Your task to perform on an android device: turn on notifications settings in the gmail app Image 0: 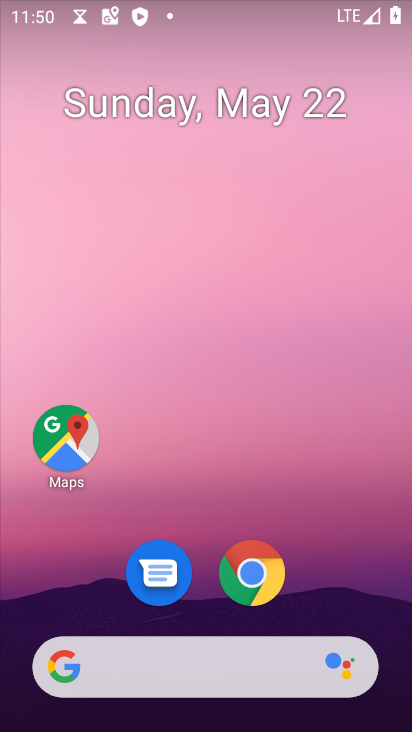
Step 0: press home button
Your task to perform on an android device: turn on notifications settings in the gmail app Image 1: 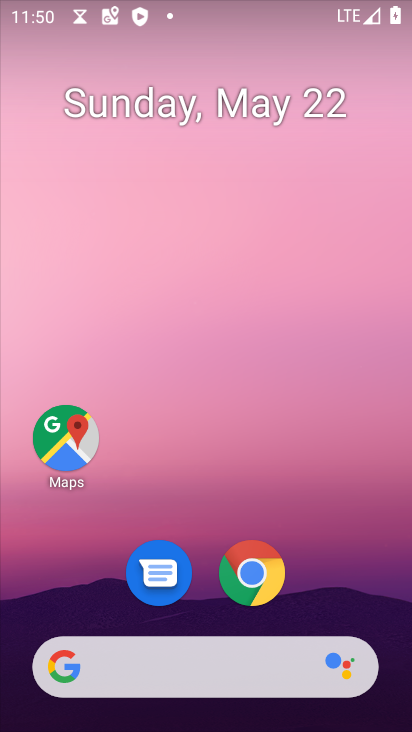
Step 1: drag from (223, 671) to (365, 164)
Your task to perform on an android device: turn on notifications settings in the gmail app Image 2: 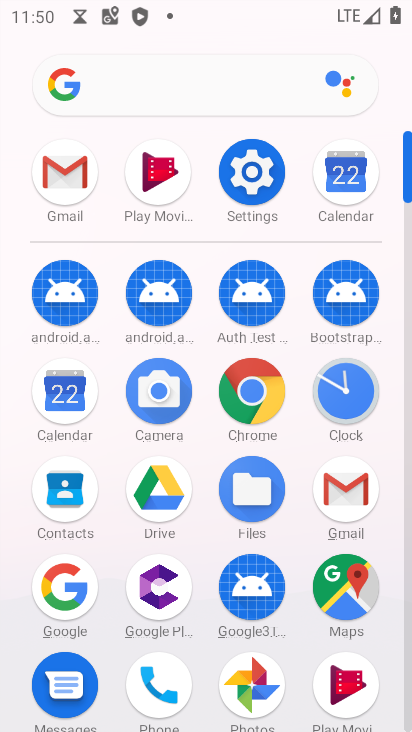
Step 2: click (345, 516)
Your task to perform on an android device: turn on notifications settings in the gmail app Image 3: 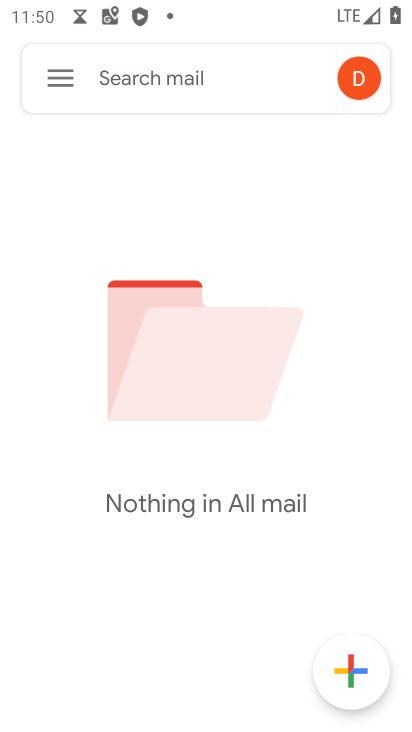
Step 3: click (49, 77)
Your task to perform on an android device: turn on notifications settings in the gmail app Image 4: 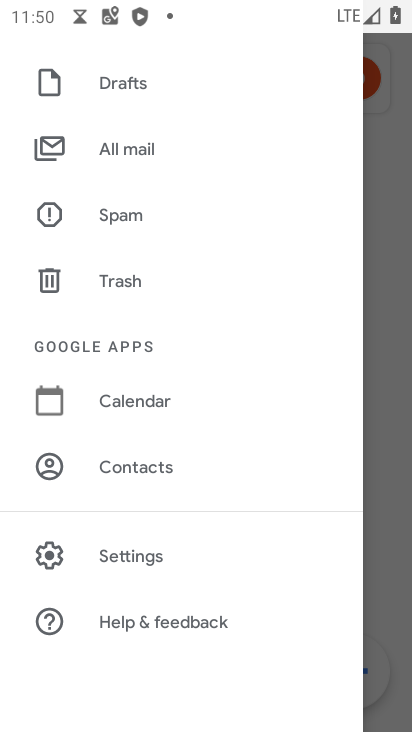
Step 4: click (137, 552)
Your task to perform on an android device: turn on notifications settings in the gmail app Image 5: 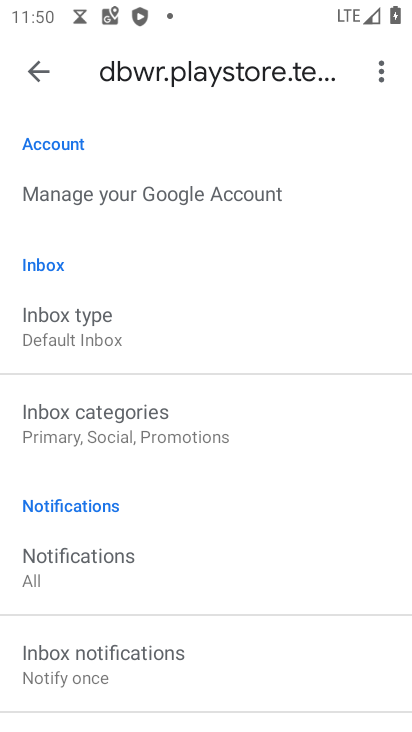
Step 5: click (96, 562)
Your task to perform on an android device: turn on notifications settings in the gmail app Image 6: 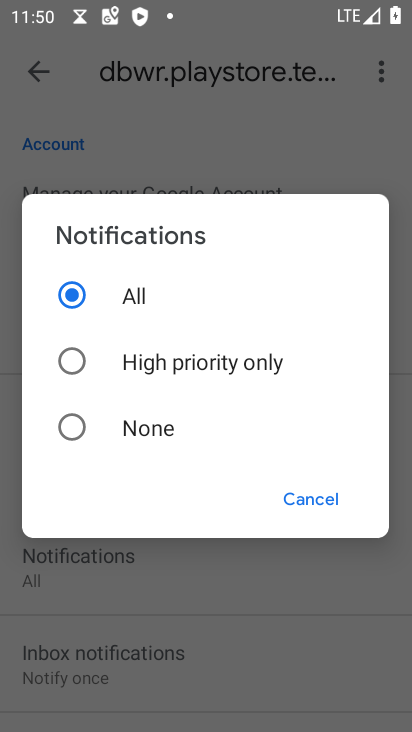
Step 6: task complete